Your task to perform on an android device: turn smart compose on in the gmail app Image 0: 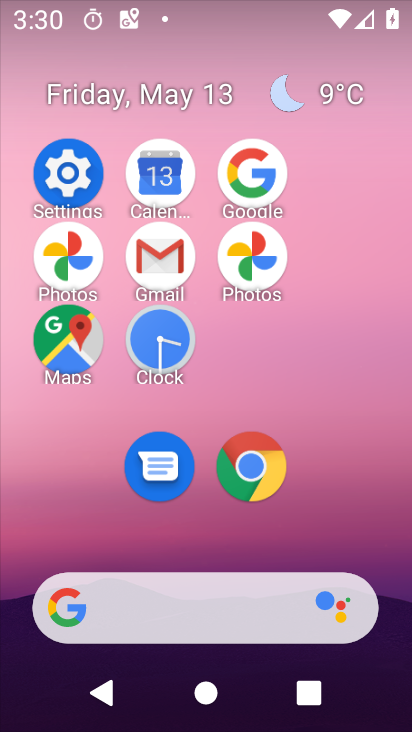
Step 0: click (183, 268)
Your task to perform on an android device: turn smart compose on in the gmail app Image 1: 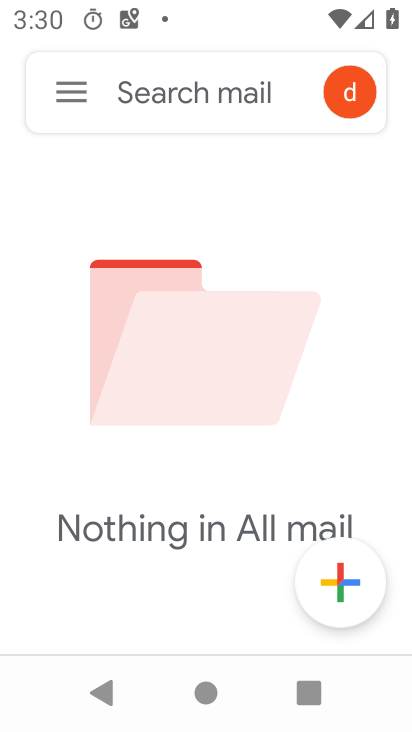
Step 1: click (77, 85)
Your task to perform on an android device: turn smart compose on in the gmail app Image 2: 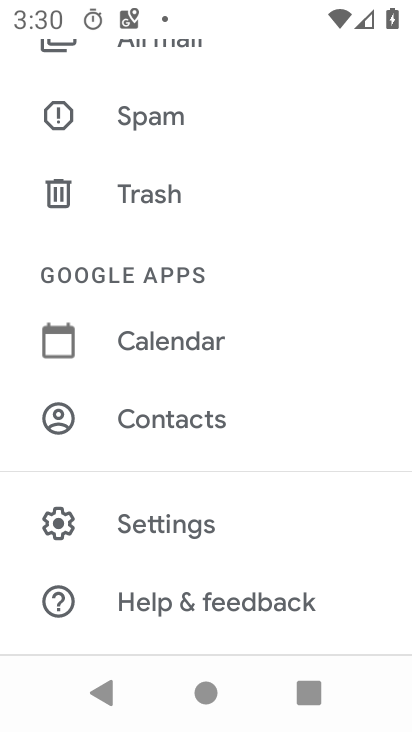
Step 2: click (212, 523)
Your task to perform on an android device: turn smart compose on in the gmail app Image 3: 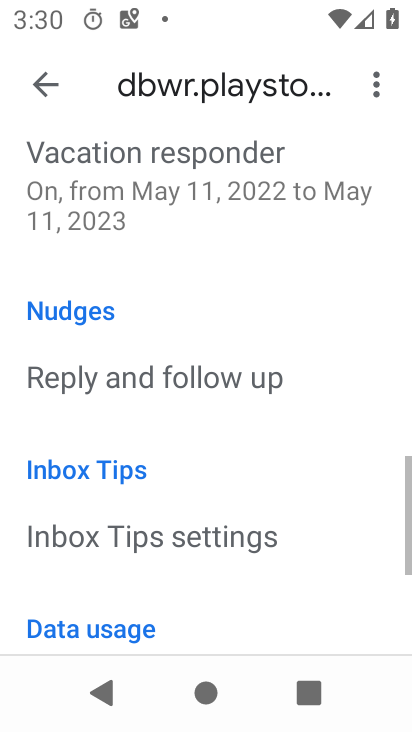
Step 3: task complete